Your task to perform on an android device: What's on my calendar today? Image 0: 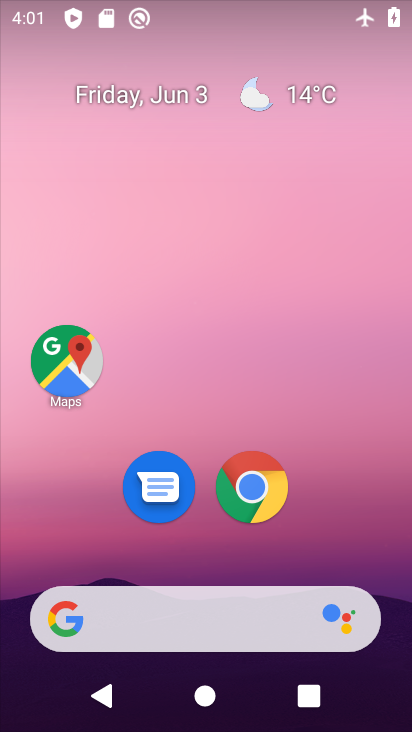
Step 0: drag from (205, 484) to (262, 28)
Your task to perform on an android device: What's on my calendar today? Image 1: 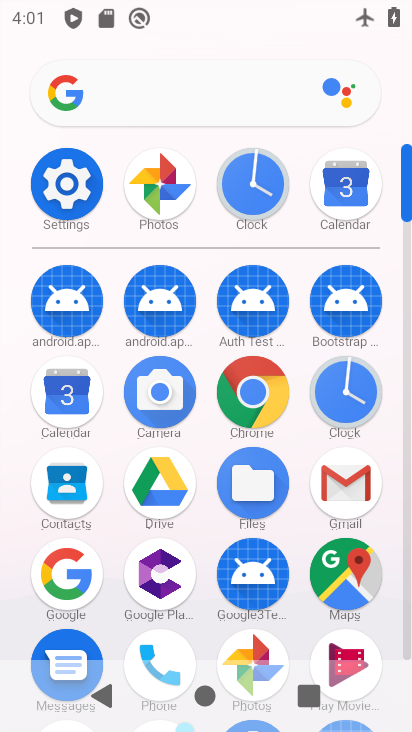
Step 1: click (69, 405)
Your task to perform on an android device: What's on my calendar today? Image 2: 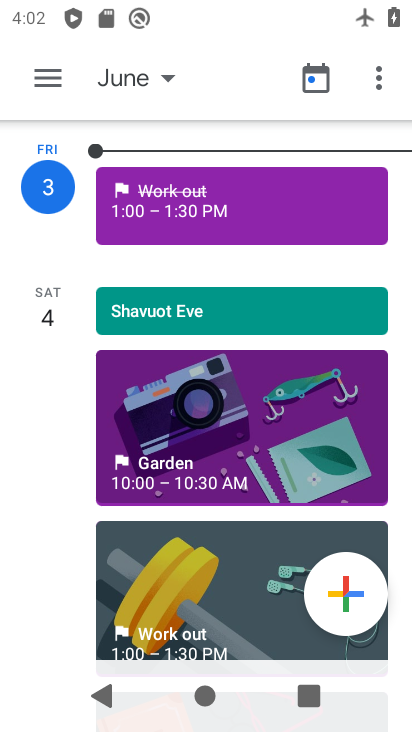
Step 2: click (229, 211)
Your task to perform on an android device: What's on my calendar today? Image 3: 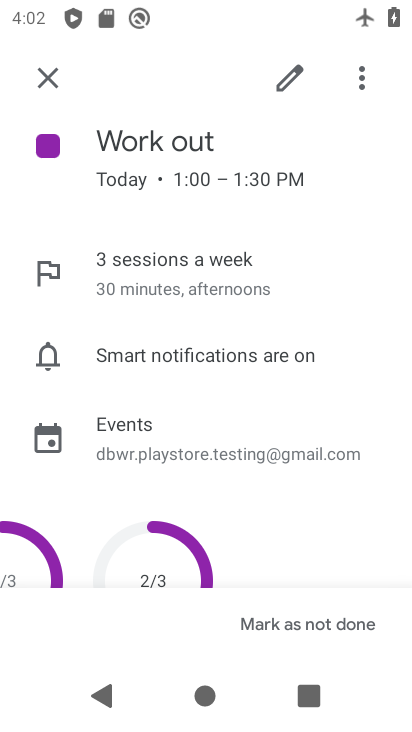
Step 3: task complete